Your task to perform on an android device: check data usage Image 0: 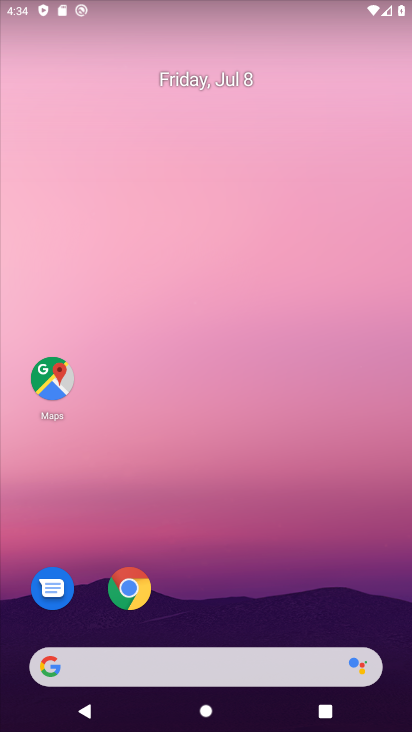
Step 0: drag from (226, 490) to (168, 160)
Your task to perform on an android device: check data usage Image 1: 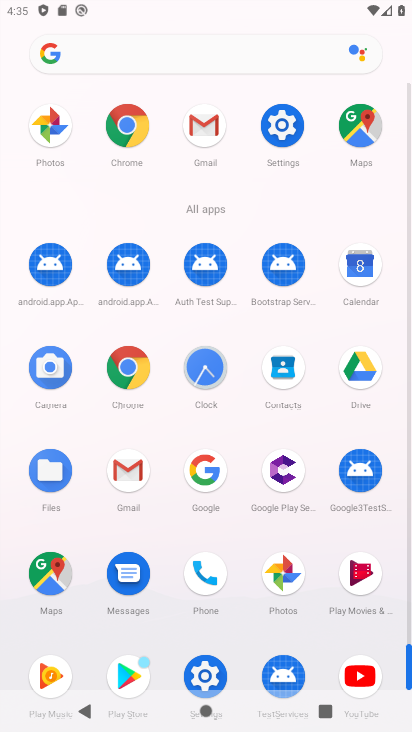
Step 1: click (224, 668)
Your task to perform on an android device: check data usage Image 2: 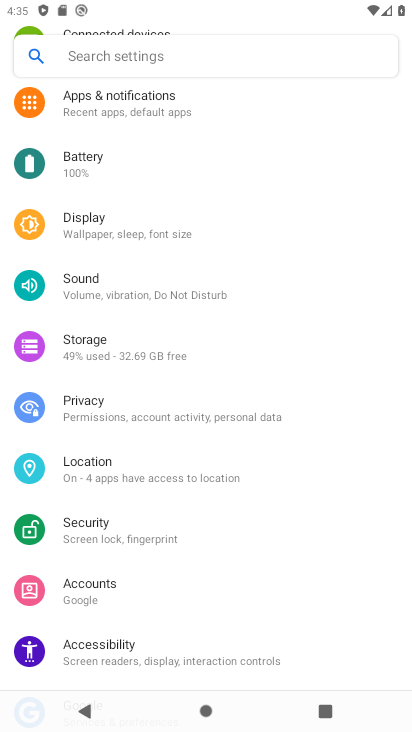
Step 2: drag from (122, 255) to (145, 577)
Your task to perform on an android device: check data usage Image 3: 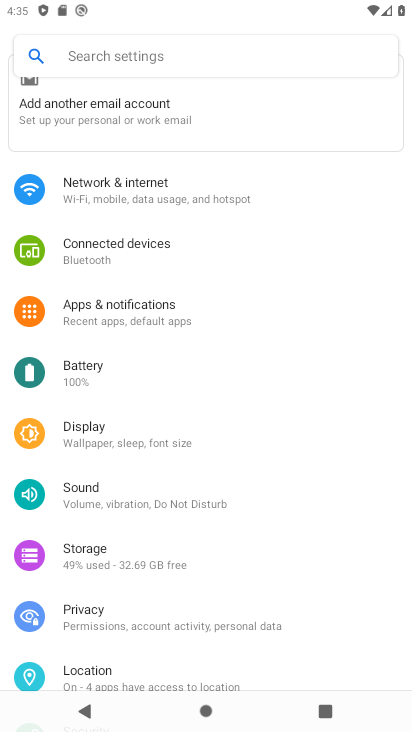
Step 3: click (132, 202)
Your task to perform on an android device: check data usage Image 4: 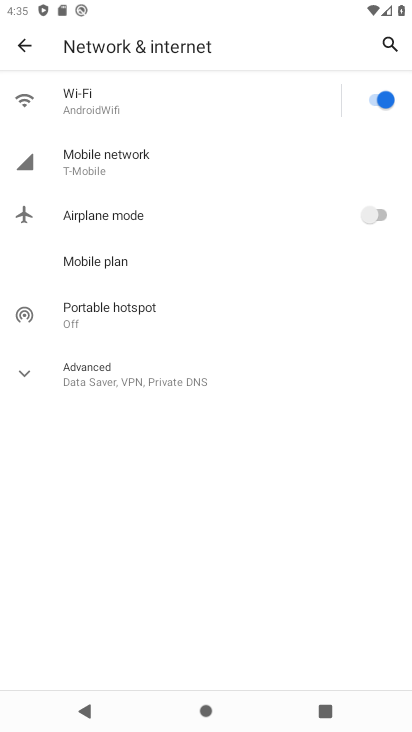
Step 4: click (209, 176)
Your task to perform on an android device: check data usage Image 5: 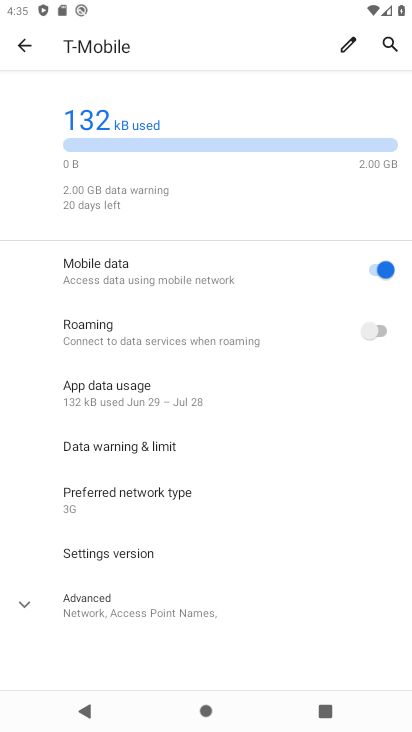
Step 5: click (23, 43)
Your task to perform on an android device: check data usage Image 6: 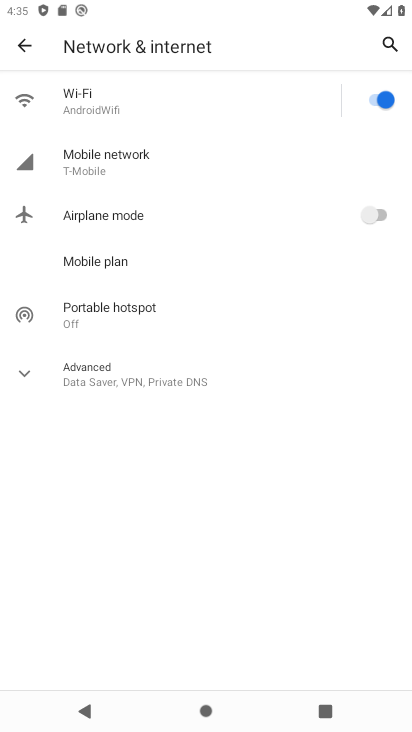
Step 6: click (23, 47)
Your task to perform on an android device: check data usage Image 7: 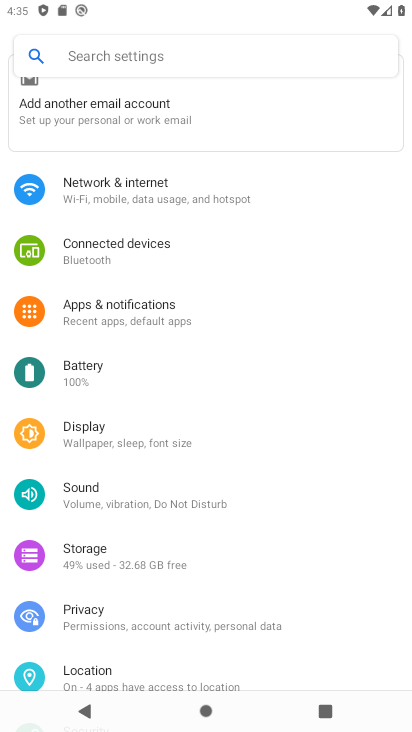
Step 7: click (100, 62)
Your task to perform on an android device: check data usage Image 8: 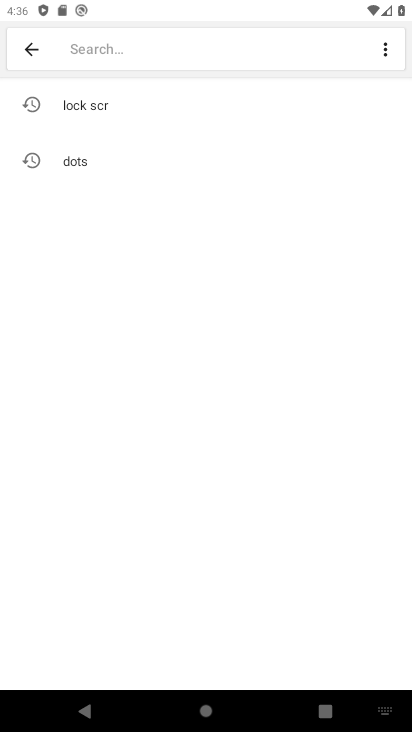
Step 8: type "data usage"
Your task to perform on an android device: check data usage Image 9: 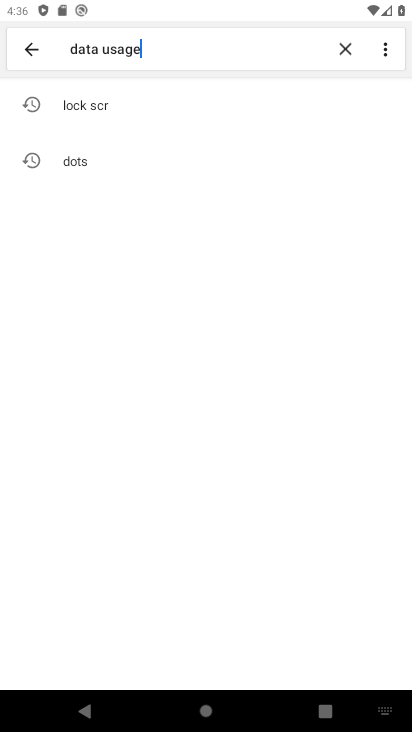
Step 9: type ""
Your task to perform on an android device: check data usage Image 10: 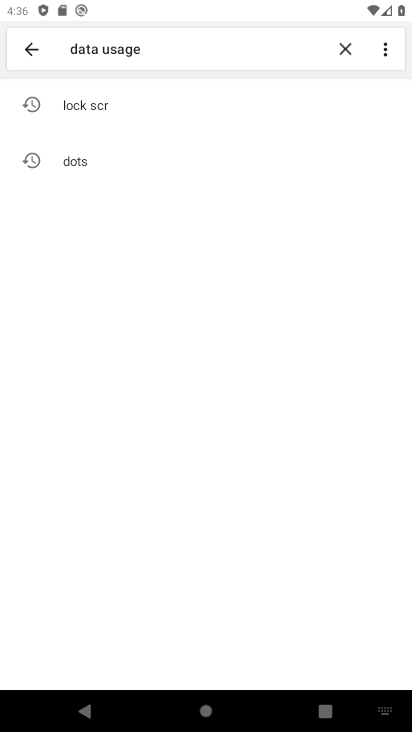
Step 10: press enter
Your task to perform on an android device: check data usage Image 11: 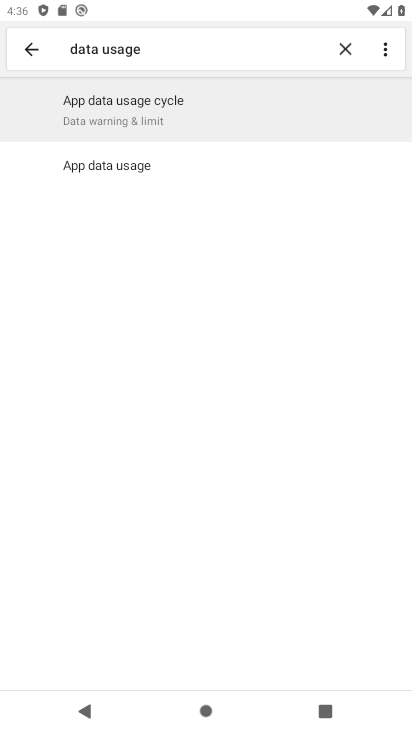
Step 11: click (172, 113)
Your task to perform on an android device: check data usage Image 12: 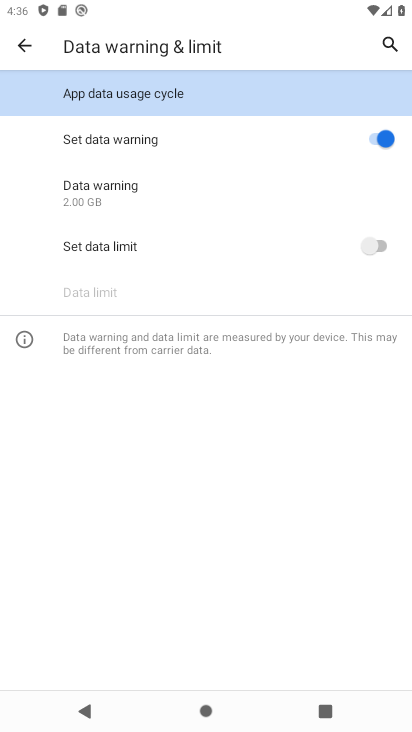
Step 12: click (152, 104)
Your task to perform on an android device: check data usage Image 13: 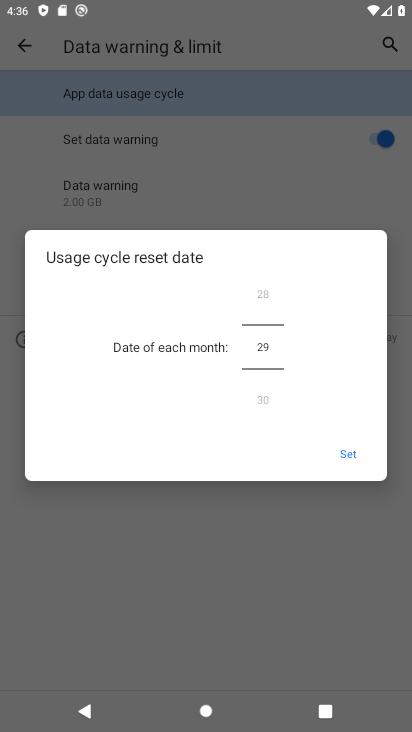
Step 13: click (304, 535)
Your task to perform on an android device: check data usage Image 14: 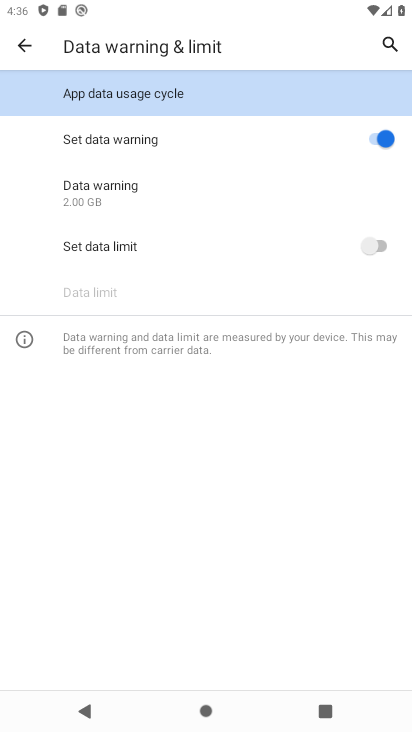
Step 14: click (26, 52)
Your task to perform on an android device: check data usage Image 15: 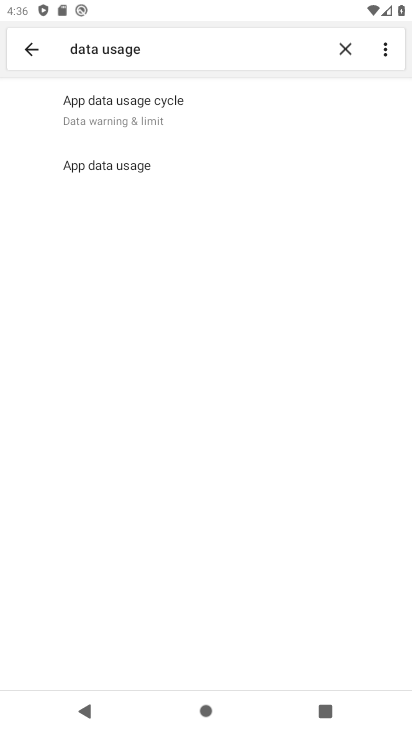
Step 15: click (26, 52)
Your task to perform on an android device: check data usage Image 16: 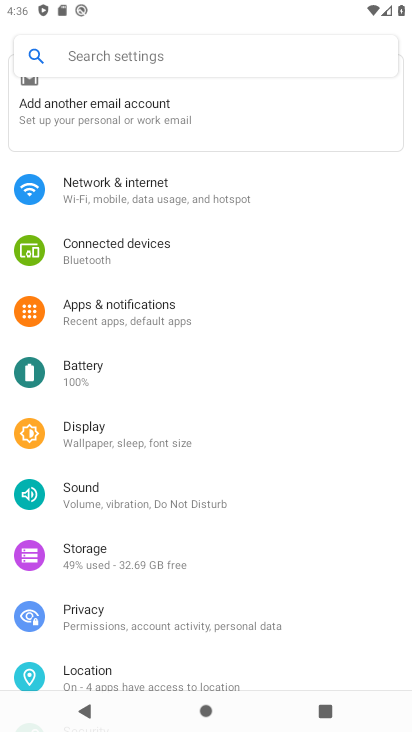
Step 16: click (189, 194)
Your task to perform on an android device: check data usage Image 17: 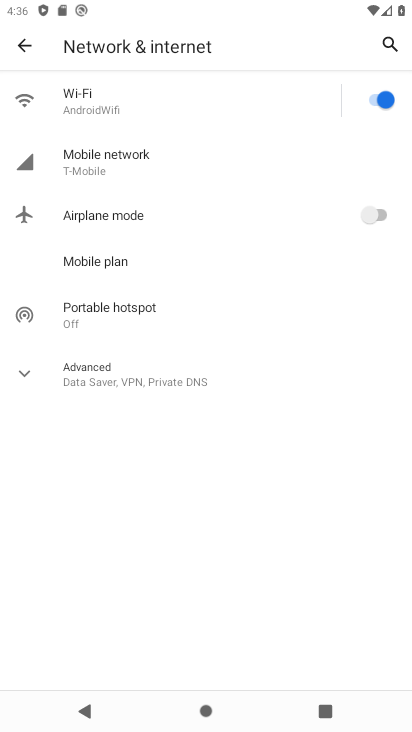
Step 17: click (183, 181)
Your task to perform on an android device: check data usage Image 18: 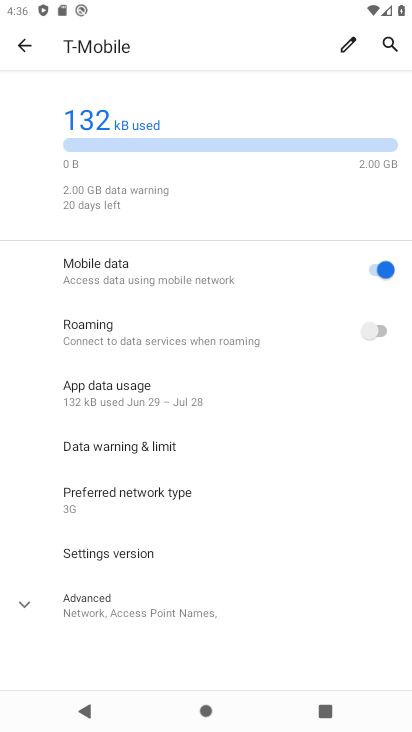
Step 18: click (179, 401)
Your task to perform on an android device: check data usage Image 19: 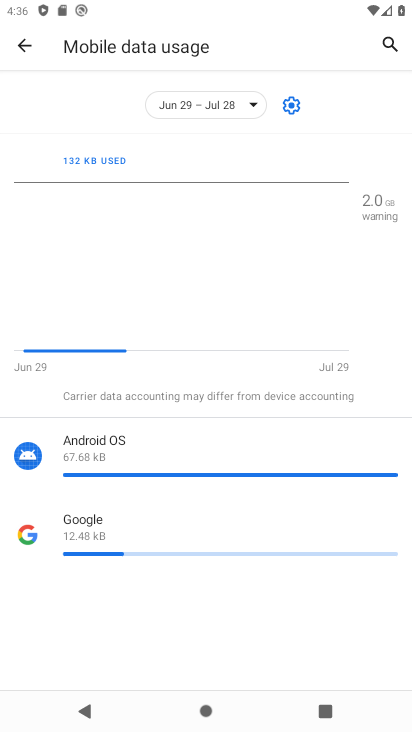
Step 19: task complete